Your task to perform on an android device: Go to calendar. Show me events next week Image 0: 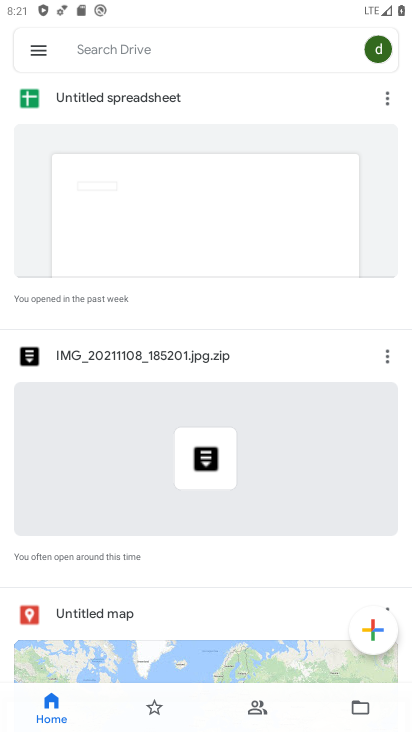
Step 0: press home button
Your task to perform on an android device: Go to calendar. Show me events next week Image 1: 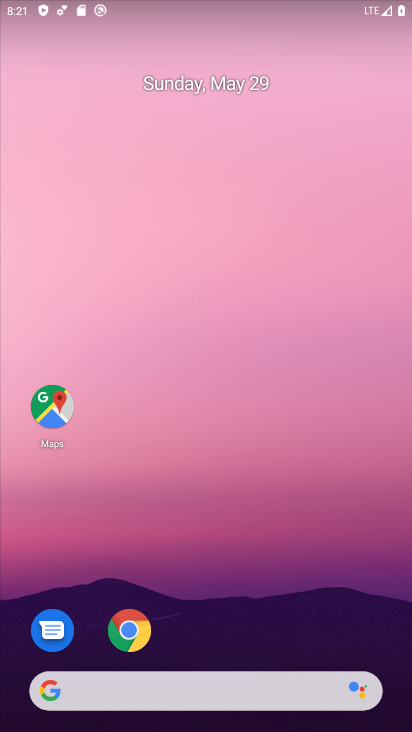
Step 1: drag from (202, 659) to (43, 99)
Your task to perform on an android device: Go to calendar. Show me events next week Image 2: 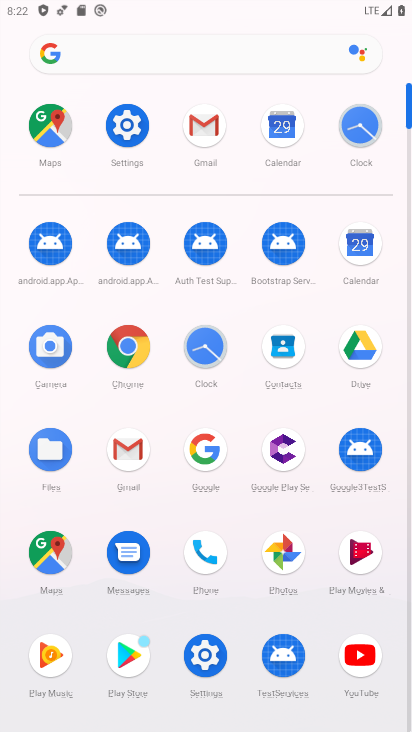
Step 2: click (360, 244)
Your task to perform on an android device: Go to calendar. Show me events next week Image 3: 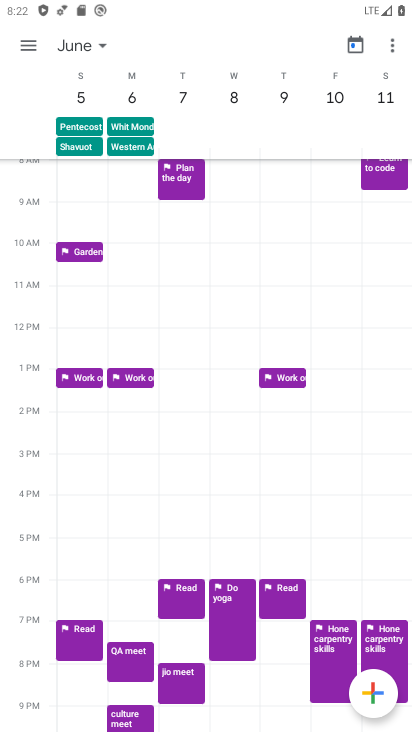
Step 3: task complete